Your task to perform on an android device: Search for Mexican restaurants on Maps Image 0: 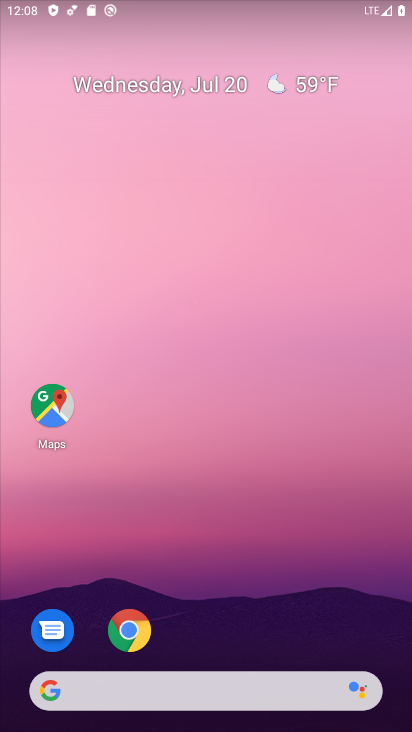
Step 0: drag from (269, 672) to (240, 195)
Your task to perform on an android device: Search for Mexican restaurants on Maps Image 1: 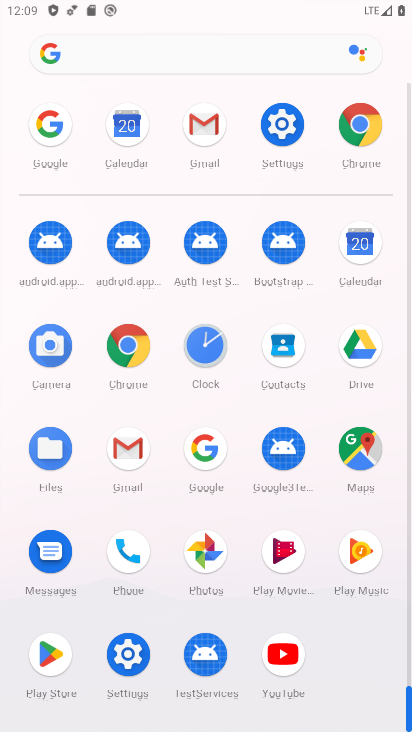
Step 1: click (371, 450)
Your task to perform on an android device: Search for Mexican restaurants on Maps Image 2: 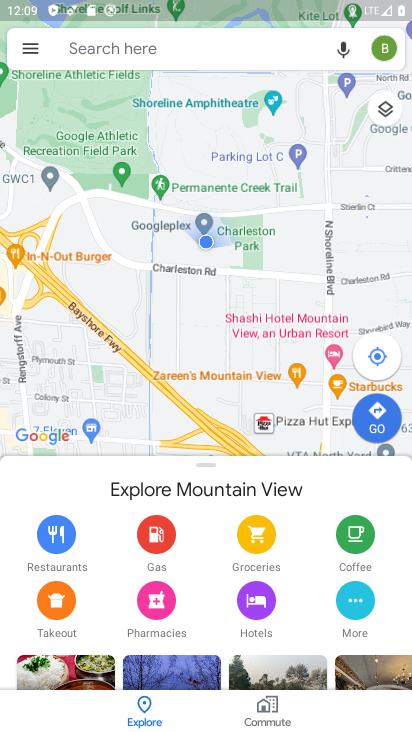
Step 2: click (242, 57)
Your task to perform on an android device: Search for Mexican restaurants on Maps Image 3: 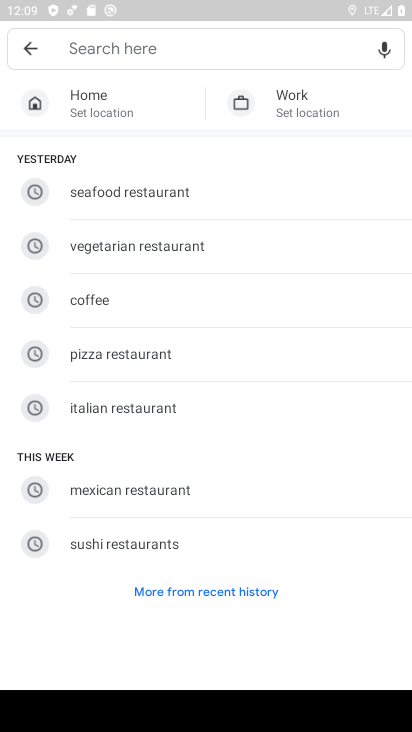
Step 3: click (153, 487)
Your task to perform on an android device: Search for Mexican restaurants on Maps Image 4: 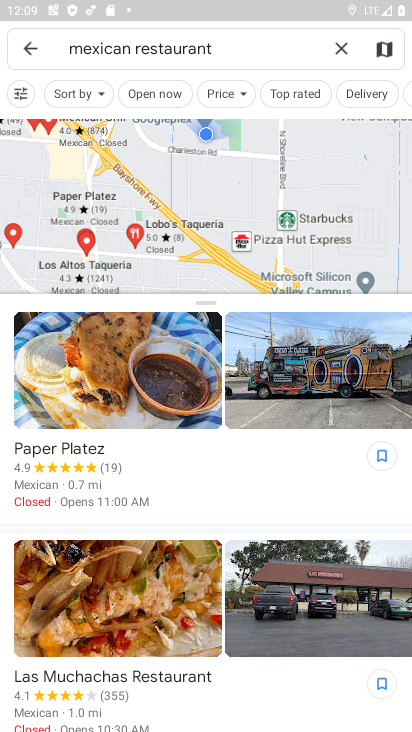
Step 4: task complete